Your task to perform on an android device: clear history in the chrome app Image 0: 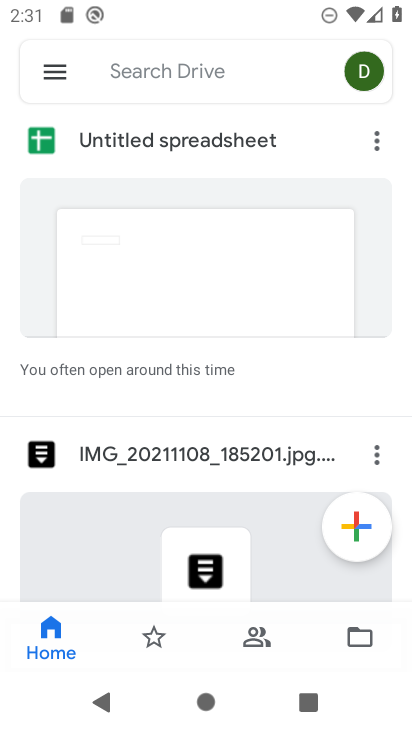
Step 0: press home button
Your task to perform on an android device: clear history in the chrome app Image 1: 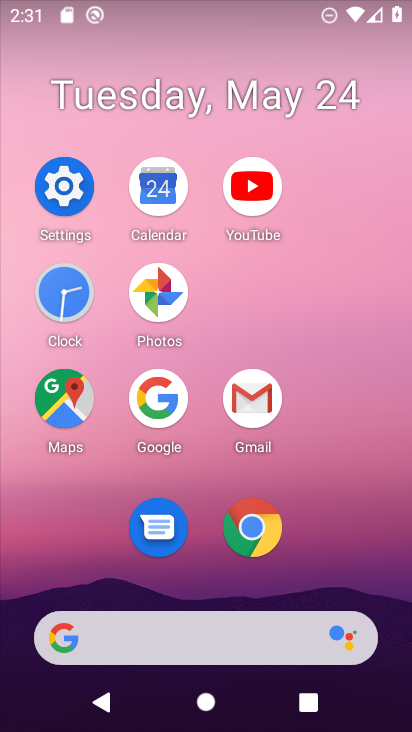
Step 1: click (264, 530)
Your task to perform on an android device: clear history in the chrome app Image 2: 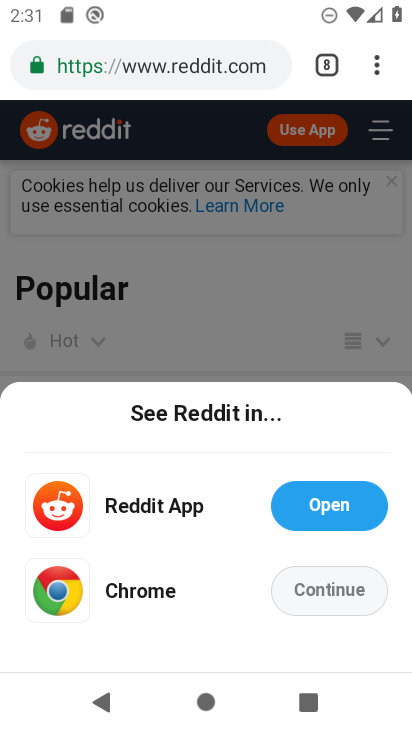
Step 2: click (376, 79)
Your task to perform on an android device: clear history in the chrome app Image 3: 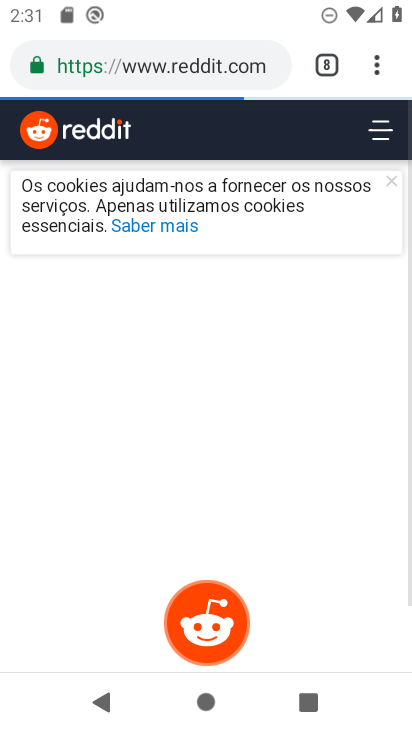
Step 3: click (359, 86)
Your task to perform on an android device: clear history in the chrome app Image 4: 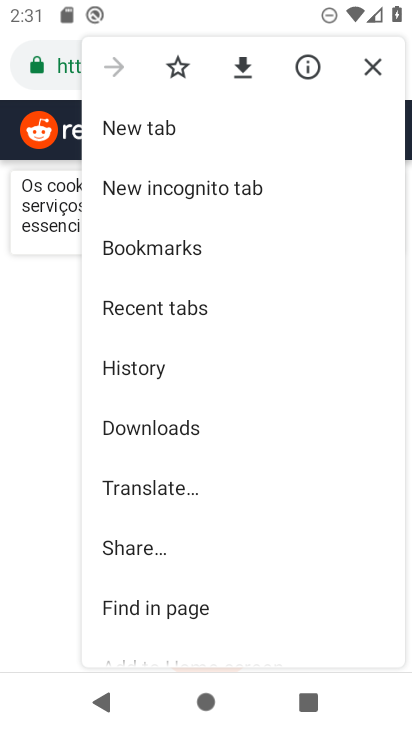
Step 4: click (134, 361)
Your task to perform on an android device: clear history in the chrome app Image 5: 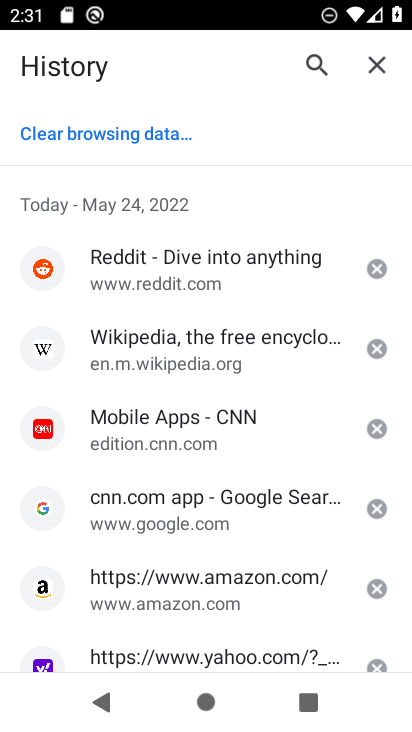
Step 5: click (100, 149)
Your task to perform on an android device: clear history in the chrome app Image 6: 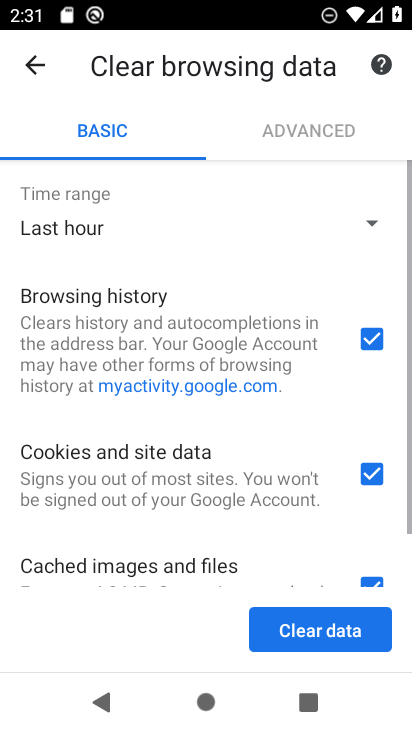
Step 6: click (355, 627)
Your task to perform on an android device: clear history in the chrome app Image 7: 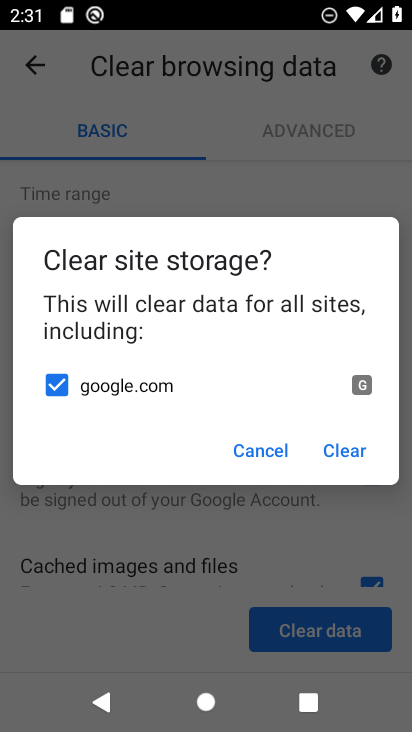
Step 7: click (328, 442)
Your task to perform on an android device: clear history in the chrome app Image 8: 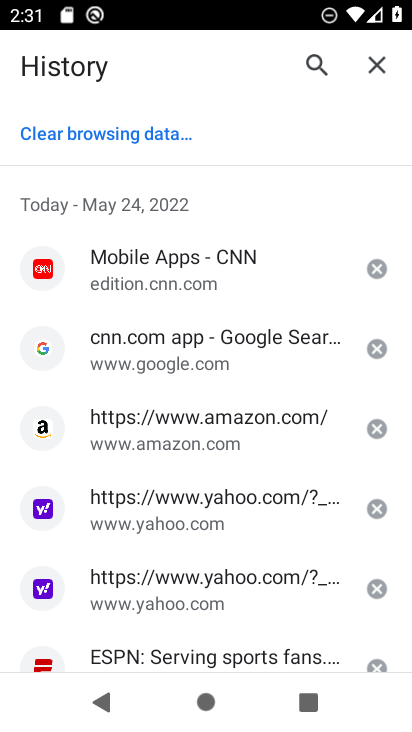
Step 8: task complete